Your task to perform on an android device: Show me productivity apps on the Play Store Image 0: 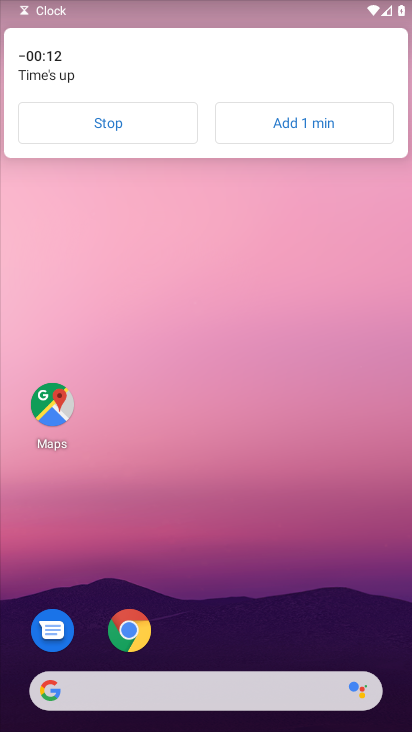
Step 0: click (133, 129)
Your task to perform on an android device: Show me productivity apps on the Play Store Image 1: 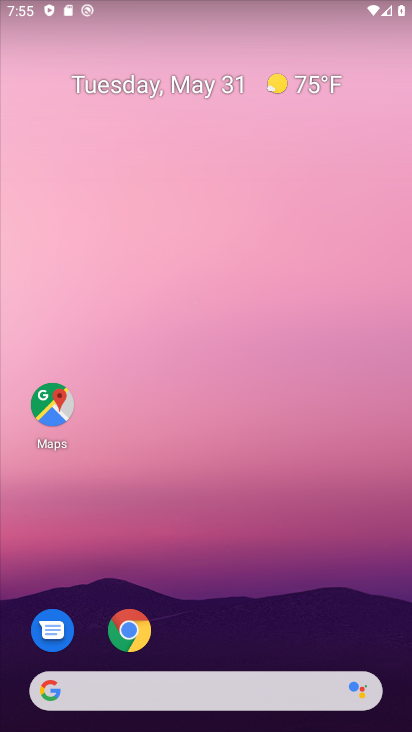
Step 1: drag from (216, 634) to (218, 147)
Your task to perform on an android device: Show me productivity apps on the Play Store Image 2: 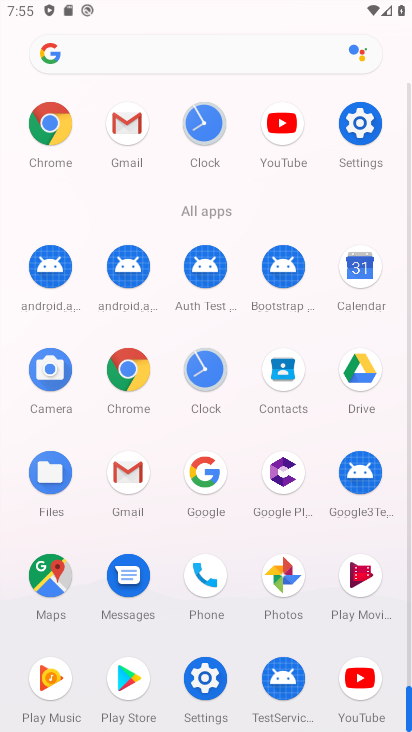
Step 2: drag from (197, 504) to (235, 210)
Your task to perform on an android device: Show me productivity apps on the Play Store Image 3: 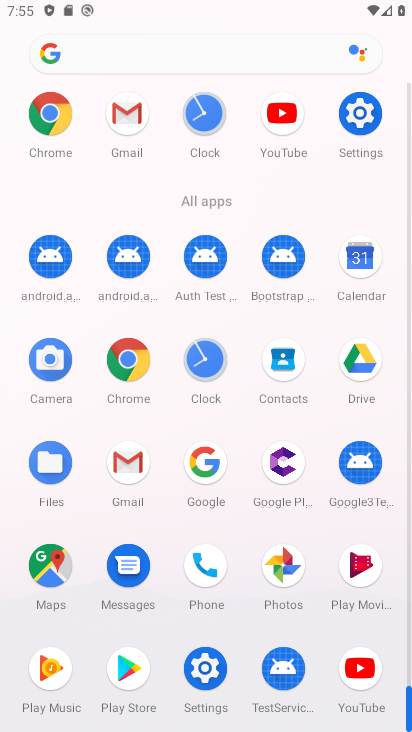
Step 3: click (133, 688)
Your task to perform on an android device: Show me productivity apps on the Play Store Image 4: 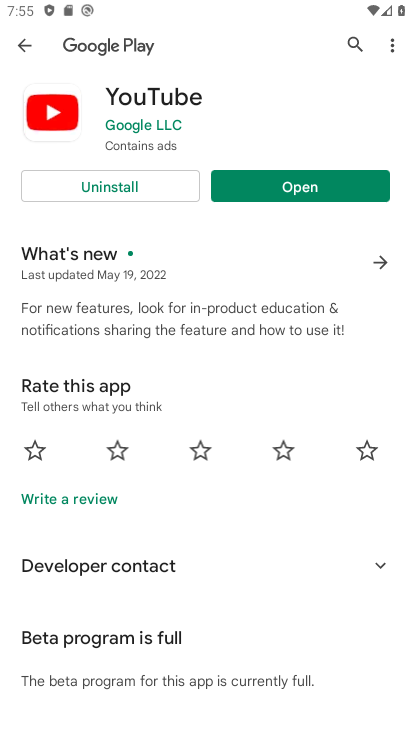
Step 4: click (22, 44)
Your task to perform on an android device: Show me productivity apps on the Play Store Image 5: 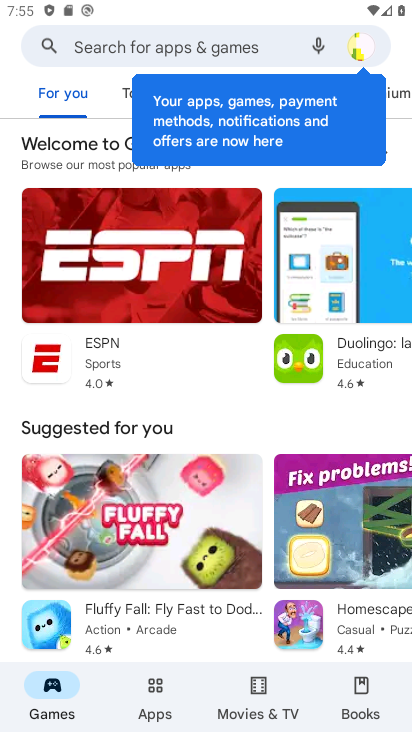
Step 5: click (153, 44)
Your task to perform on an android device: Show me productivity apps on the Play Store Image 6: 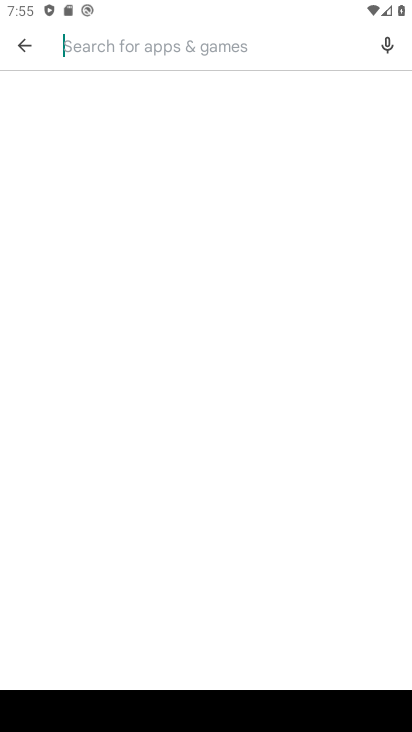
Step 6: type "productivity aaps"
Your task to perform on an android device: Show me productivity apps on the Play Store Image 7: 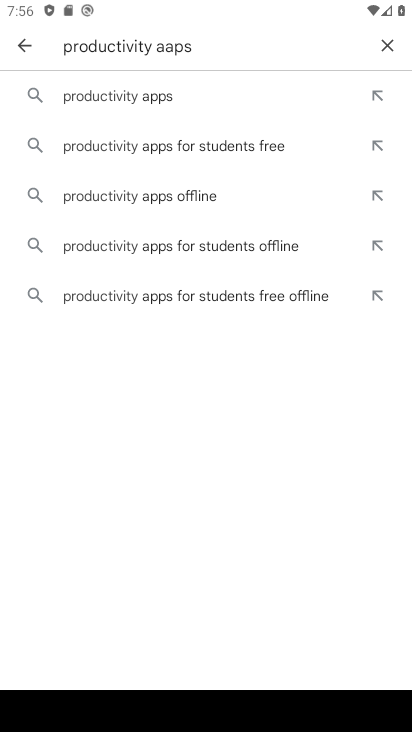
Step 7: click (138, 96)
Your task to perform on an android device: Show me productivity apps on the Play Store Image 8: 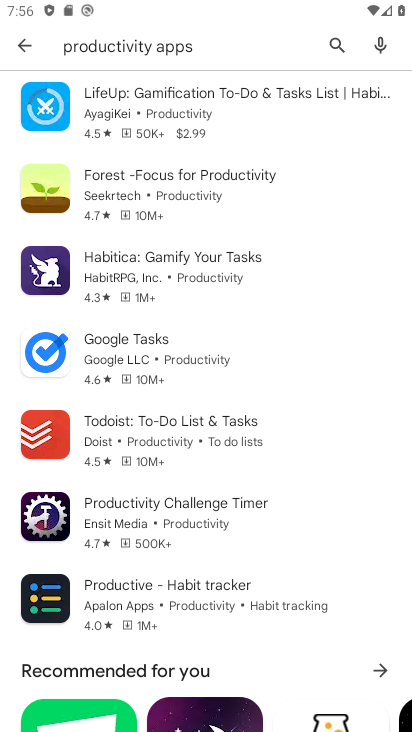
Step 8: task complete